Your task to perform on an android device: Open the Play Movies app and select the watchlist tab. Image 0: 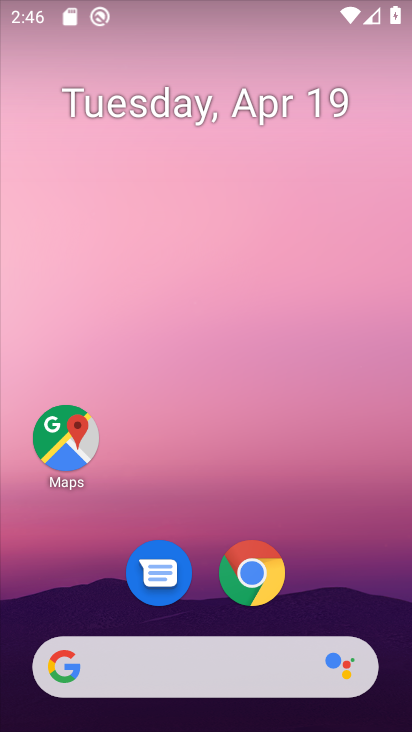
Step 0: drag from (174, 603) to (237, 130)
Your task to perform on an android device: Open the Play Movies app and select the watchlist tab. Image 1: 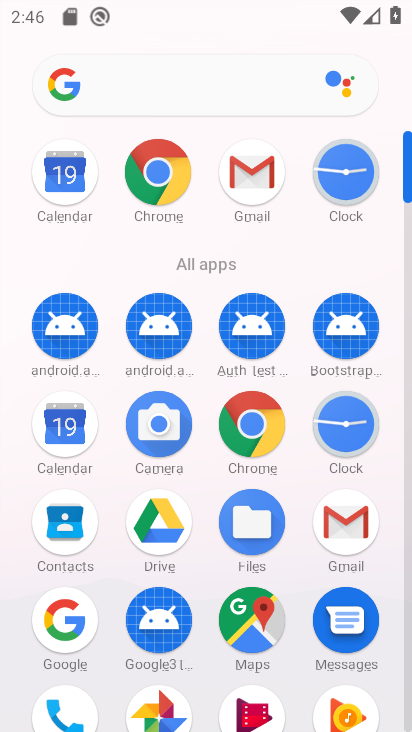
Step 1: drag from (302, 589) to (332, 370)
Your task to perform on an android device: Open the Play Movies app and select the watchlist tab. Image 2: 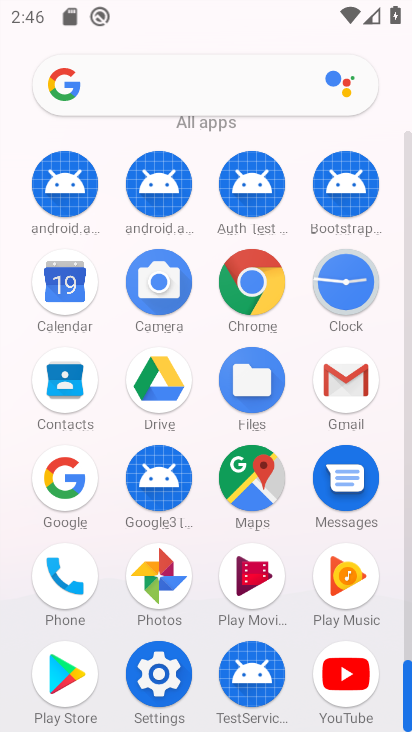
Step 2: click (265, 573)
Your task to perform on an android device: Open the Play Movies app and select the watchlist tab. Image 3: 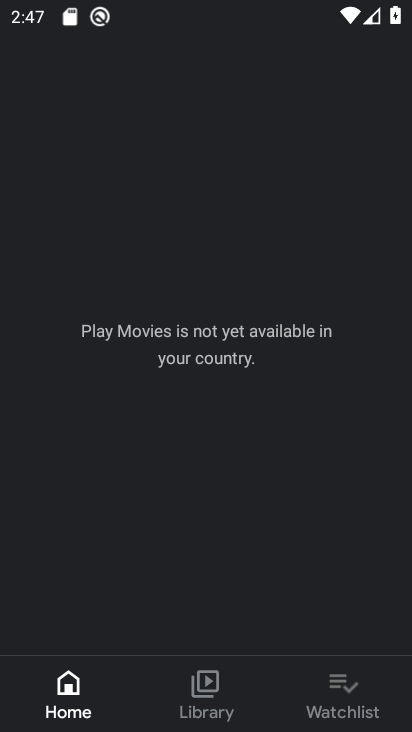
Step 3: click (344, 695)
Your task to perform on an android device: Open the Play Movies app and select the watchlist tab. Image 4: 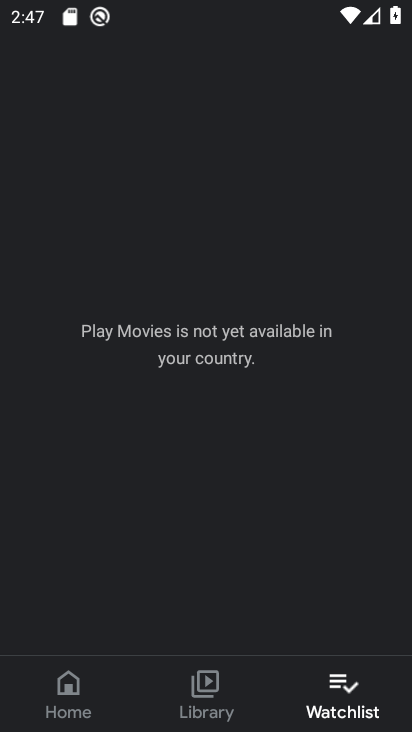
Step 4: task complete